Your task to perform on an android device: install app "Firefox Browser" Image 0: 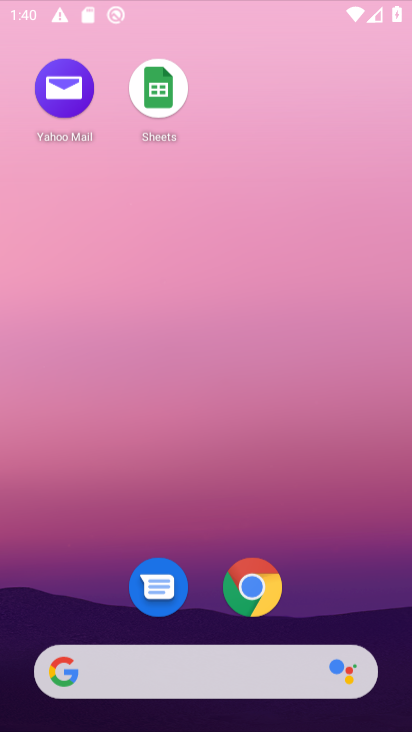
Step 0: press home button
Your task to perform on an android device: install app "Firefox Browser" Image 1: 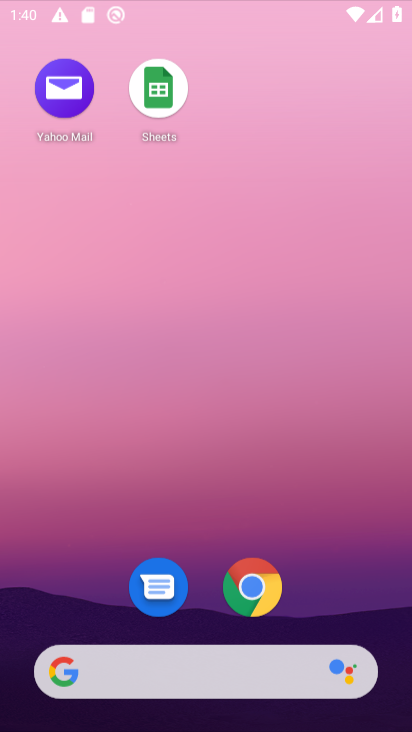
Step 1: click (241, 445)
Your task to perform on an android device: install app "Firefox Browser" Image 2: 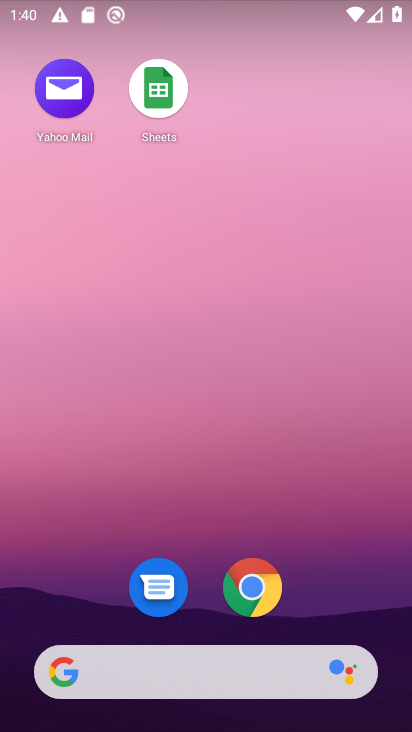
Step 2: press home button
Your task to perform on an android device: install app "Firefox Browser" Image 3: 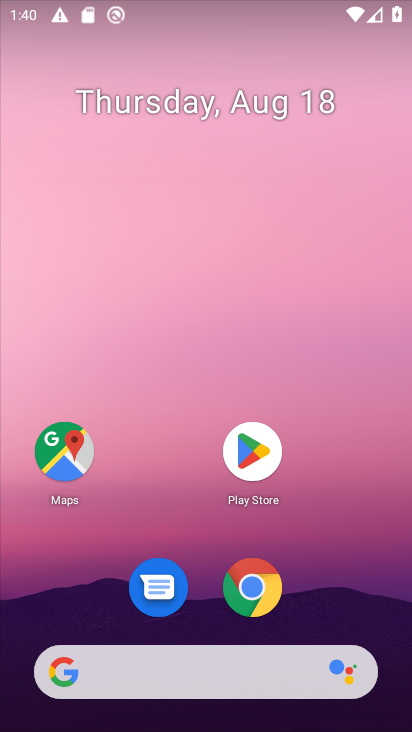
Step 3: click (251, 450)
Your task to perform on an android device: install app "Firefox Browser" Image 4: 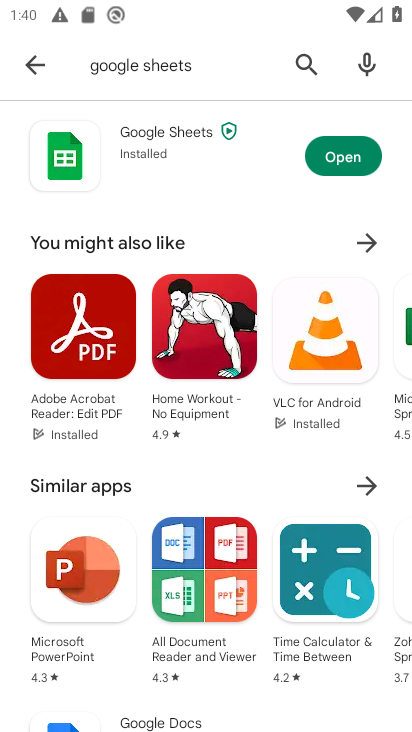
Step 4: click (301, 57)
Your task to perform on an android device: install app "Firefox Browser" Image 5: 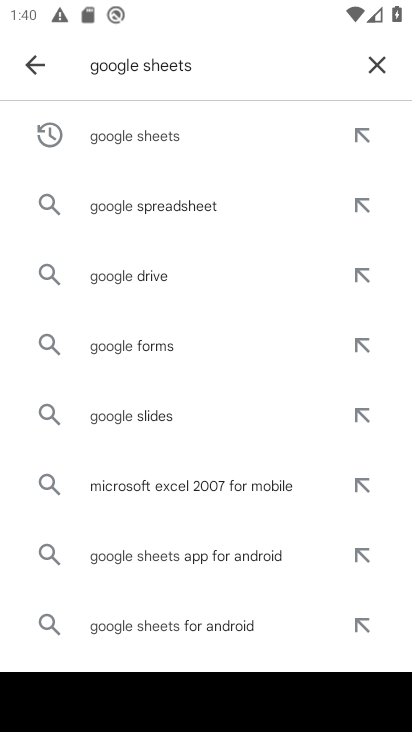
Step 5: click (375, 71)
Your task to perform on an android device: install app "Firefox Browser" Image 6: 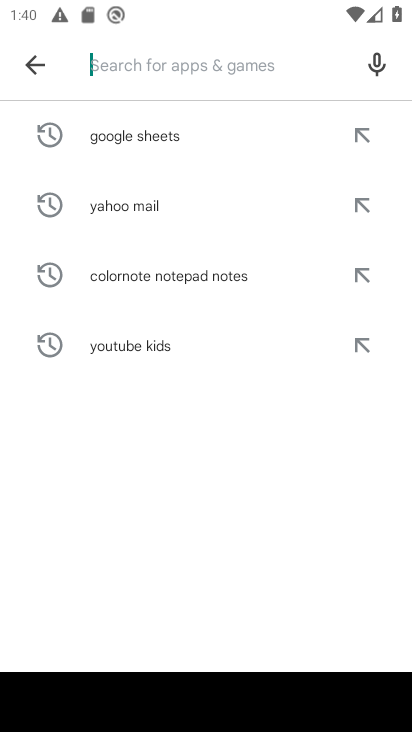
Step 6: type "Firefox Browser"
Your task to perform on an android device: install app "Firefox Browser" Image 7: 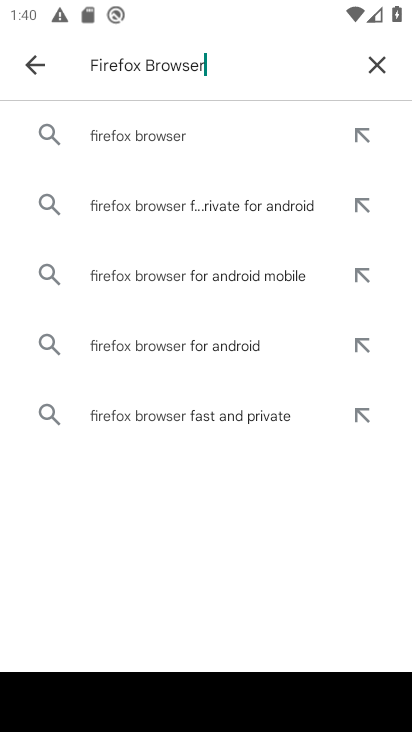
Step 7: click (145, 129)
Your task to perform on an android device: install app "Firefox Browser" Image 8: 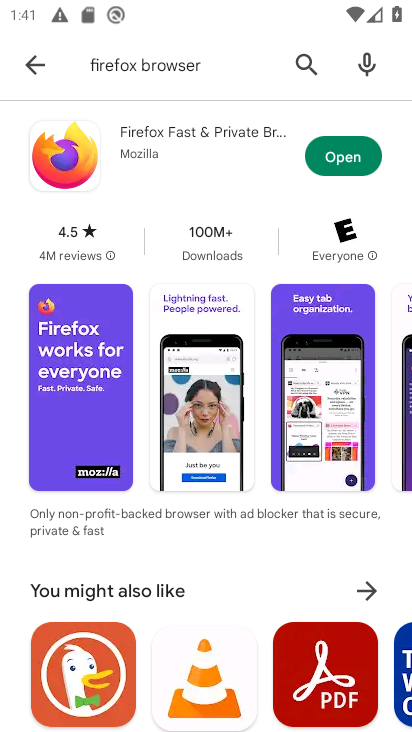
Step 8: task complete